Your task to perform on an android device: find which apps use the phone's location Image 0: 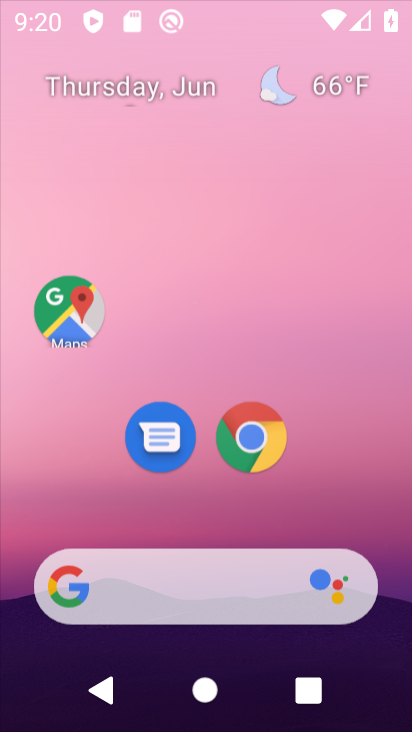
Step 0: click (135, 0)
Your task to perform on an android device: find which apps use the phone's location Image 1: 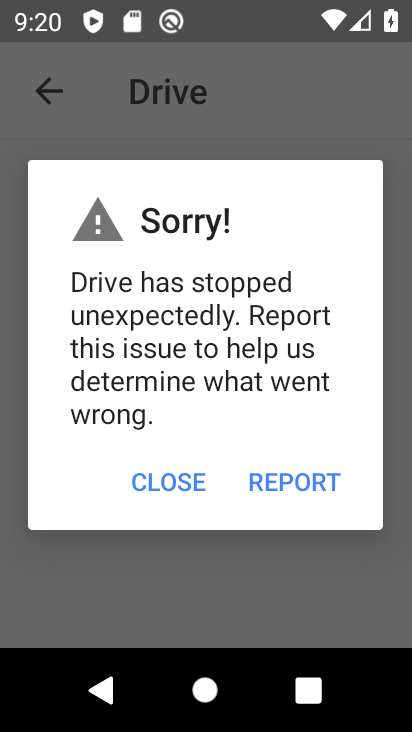
Step 1: press home button
Your task to perform on an android device: find which apps use the phone's location Image 2: 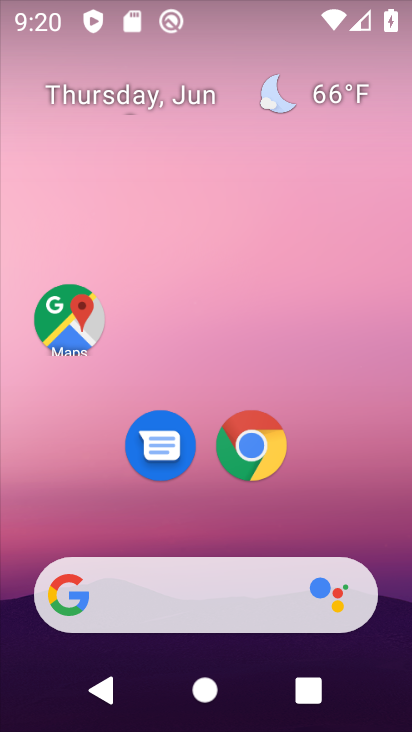
Step 2: drag from (207, 538) to (200, 4)
Your task to perform on an android device: find which apps use the phone's location Image 3: 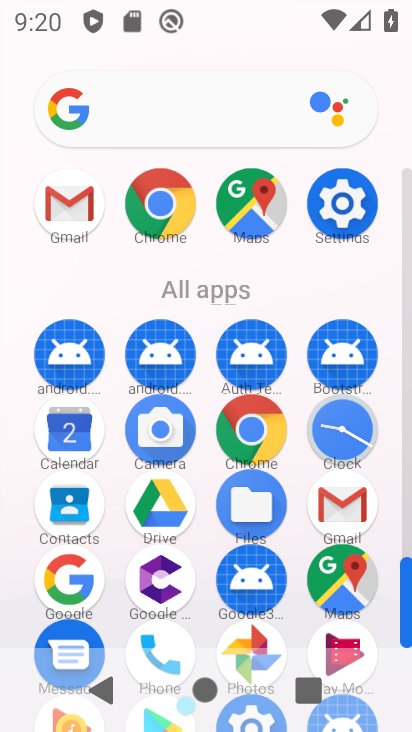
Step 3: click (337, 204)
Your task to perform on an android device: find which apps use the phone's location Image 4: 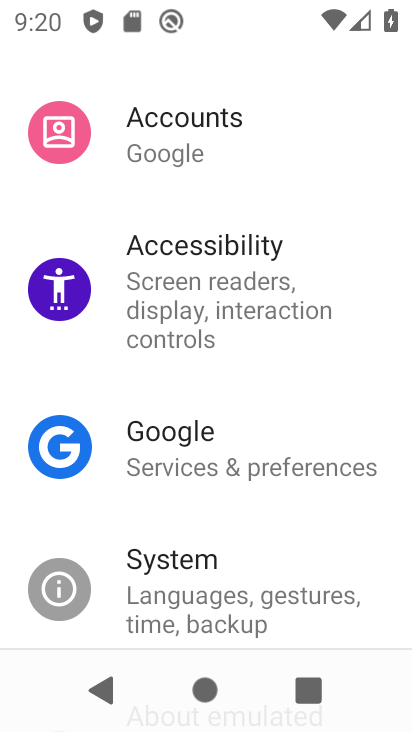
Step 4: drag from (208, 243) to (258, 495)
Your task to perform on an android device: find which apps use the phone's location Image 5: 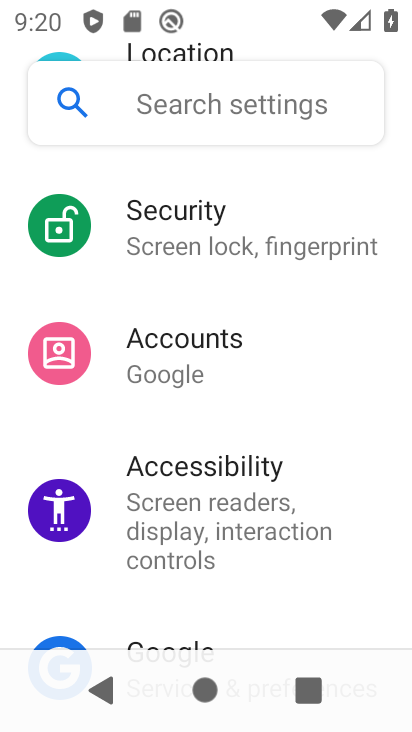
Step 5: drag from (250, 216) to (266, 485)
Your task to perform on an android device: find which apps use the phone's location Image 6: 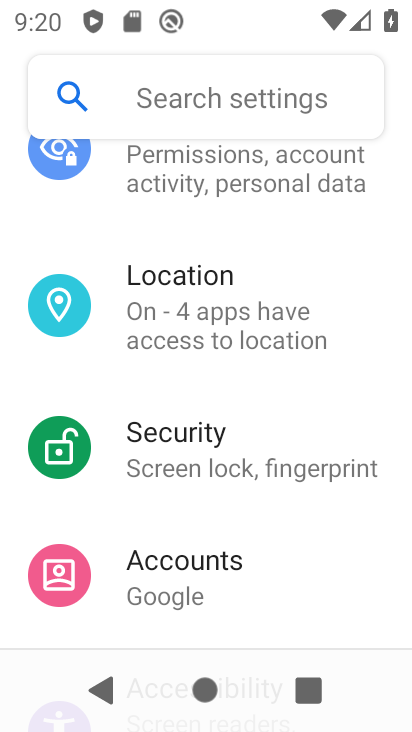
Step 6: drag from (196, 196) to (207, 471)
Your task to perform on an android device: find which apps use the phone's location Image 7: 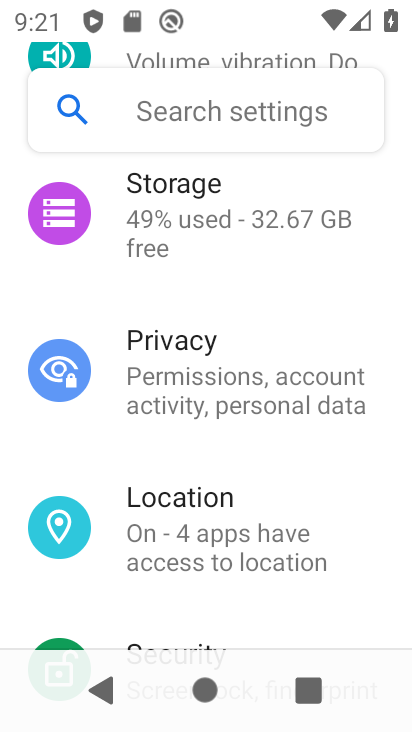
Step 7: click (124, 540)
Your task to perform on an android device: find which apps use the phone's location Image 8: 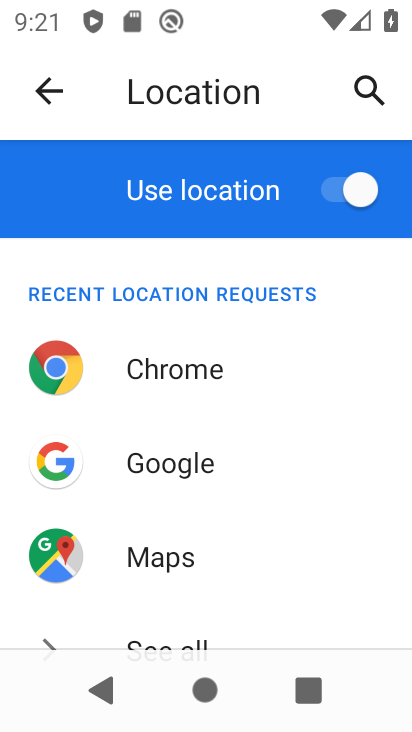
Step 8: drag from (164, 598) to (160, 142)
Your task to perform on an android device: find which apps use the phone's location Image 9: 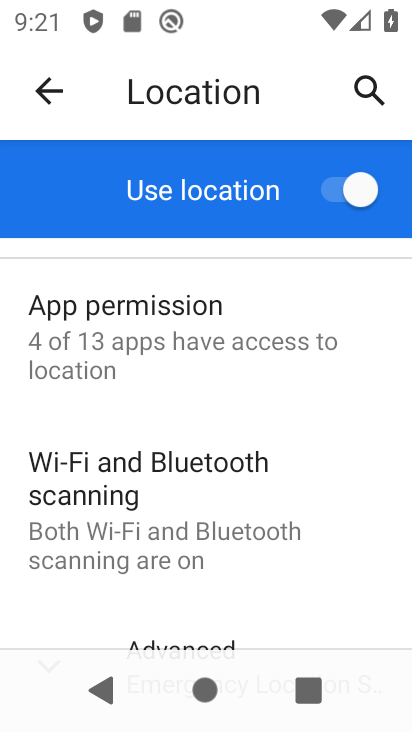
Step 9: click (176, 368)
Your task to perform on an android device: find which apps use the phone's location Image 10: 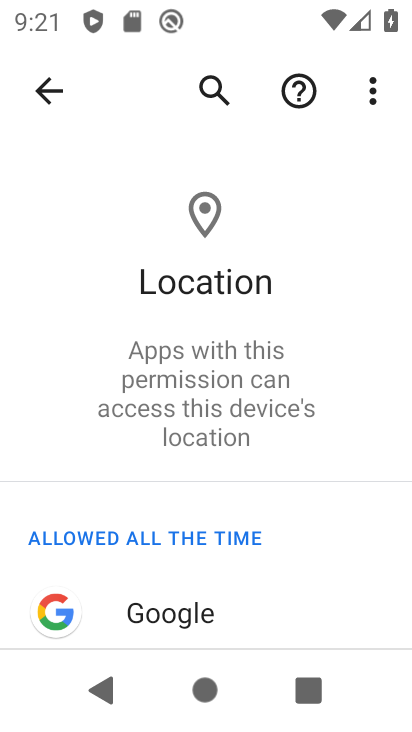
Step 10: task complete